Your task to perform on an android device: turn off notifications settings in the gmail app Image 0: 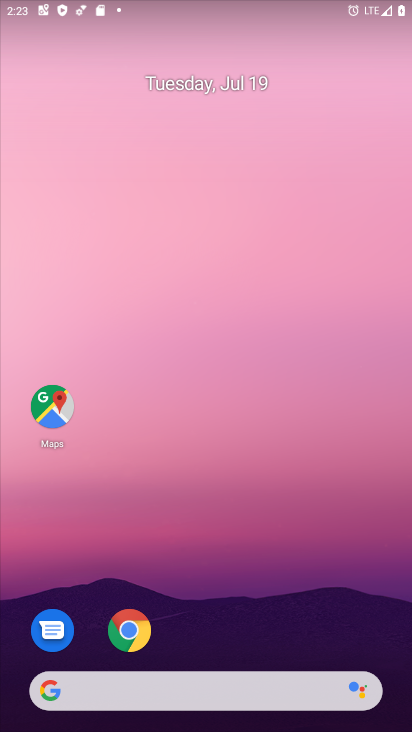
Step 0: drag from (219, 654) to (224, 27)
Your task to perform on an android device: turn off notifications settings in the gmail app Image 1: 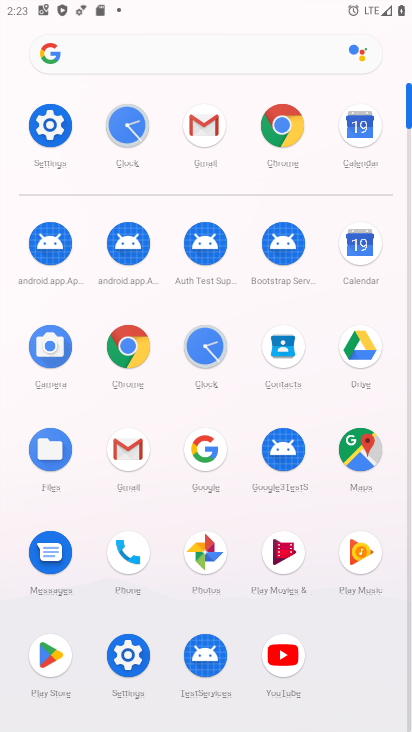
Step 1: click (199, 118)
Your task to perform on an android device: turn off notifications settings in the gmail app Image 2: 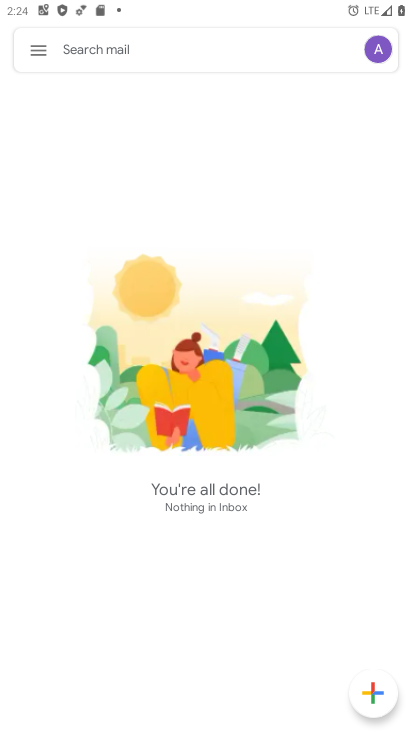
Step 2: click (37, 47)
Your task to perform on an android device: turn off notifications settings in the gmail app Image 3: 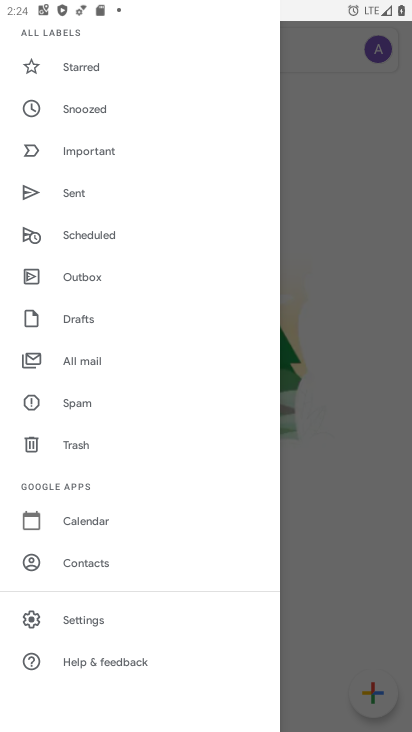
Step 3: click (112, 613)
Your task to perform on an android device: turn off notifications settings in the gmail app Image 4: 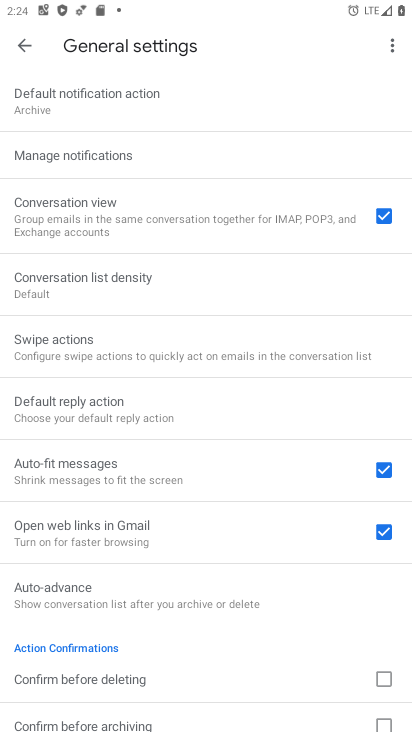
Step 4: click (118, 145)
Your task to perform on an android device: turn off notifications settings in the gmail app Image 5: 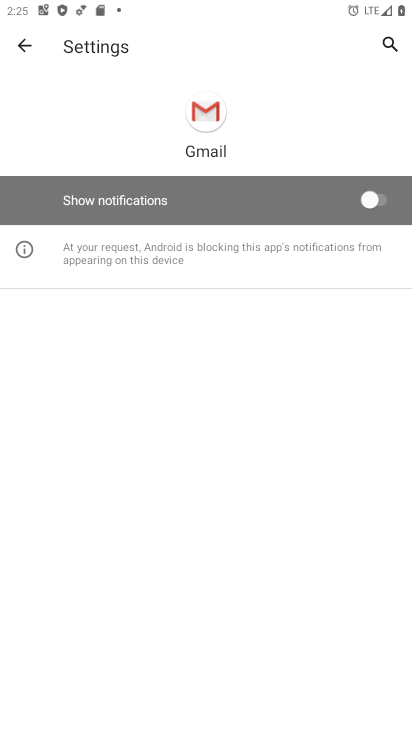
Step 5: task complete